Your task to perform on an android device: turn notification dots on Image 0: 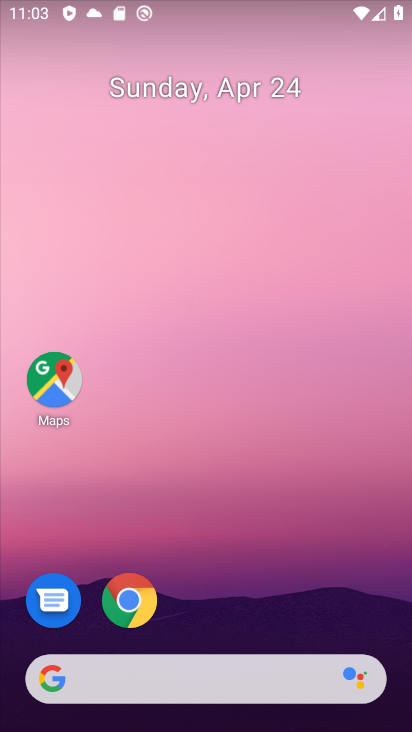
Step 0: drag from (222, 535) to (223, 76)
Your task to perform on an android device: turn notification dots on Image 1: 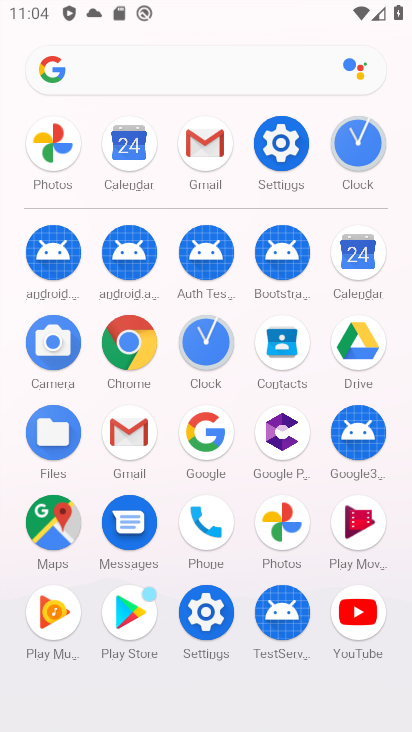
Step 1: click (280, 143)
Your task to perform on an android device: turn notification dots on Image 2: 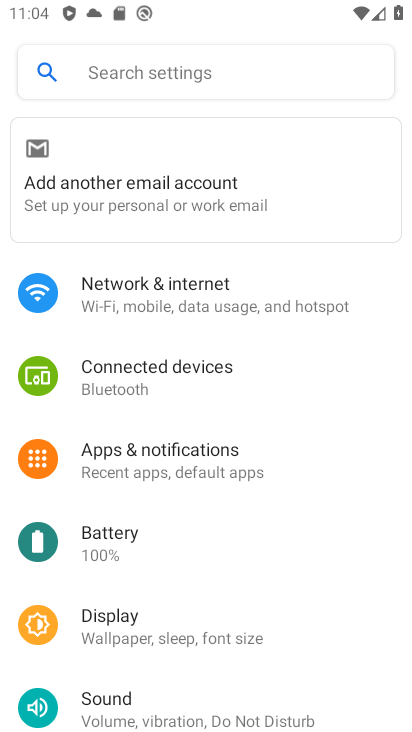
Step 2: click (181, 459)
Your task to perform on an android device: turn notification dots on Image 3: 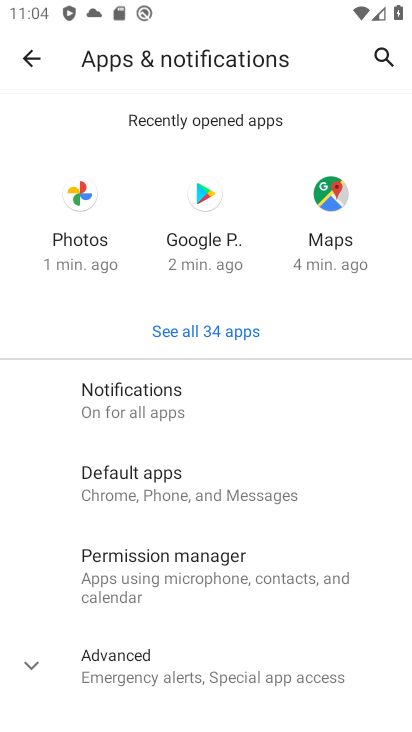
Step 3: click (123, 394)
Your task to perform on an android device: turn notification dots on Image 4: 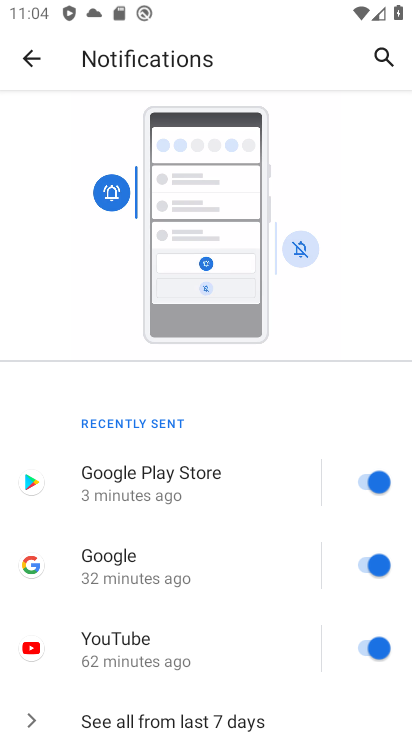
Step 4: drag from (193, 595) to (110, 88)
Your task to perform on an android device: turn notification dots on Image 5: 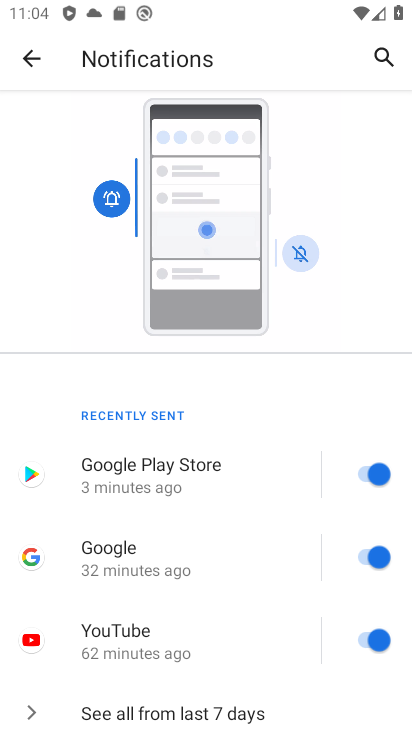
Step 5: drag from (216, 605) to (96, 332)
Your task to perform on an android device: turn notification dots on Image 6: 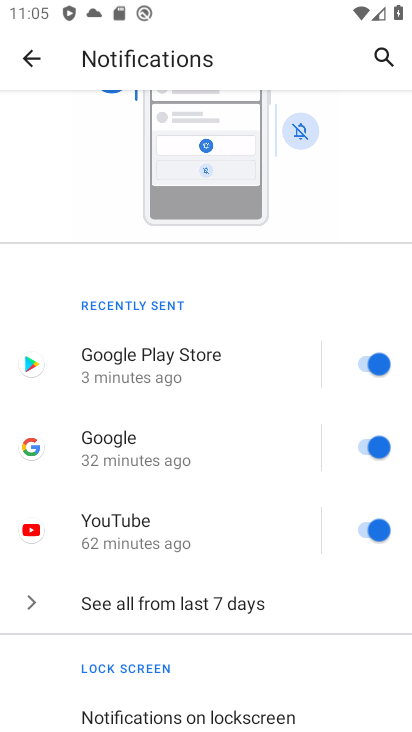
Step 6: drag from (188, 572) to (107, 184)
Your task to perform on an android device: turn notification dots on Image 7: 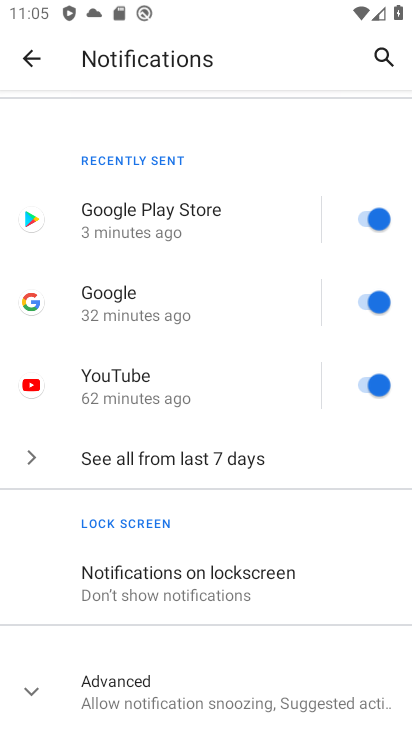
Step 7: click (78, 696)
Your task to perform on an android device: turn notification dots on Image 8: 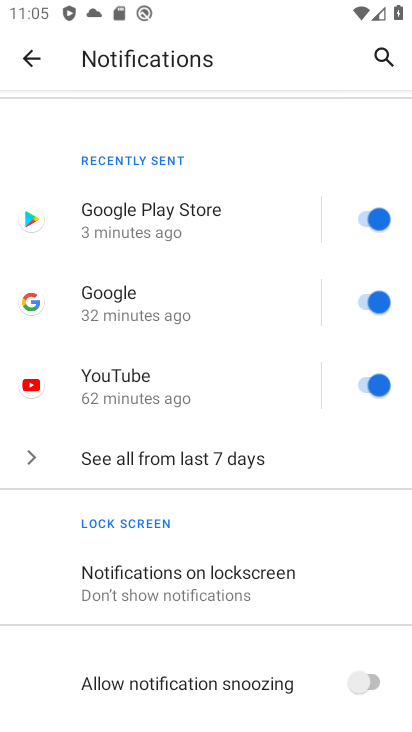
Step 8: task complete